Your task to perform on an android device: Go to location settings Image 0: 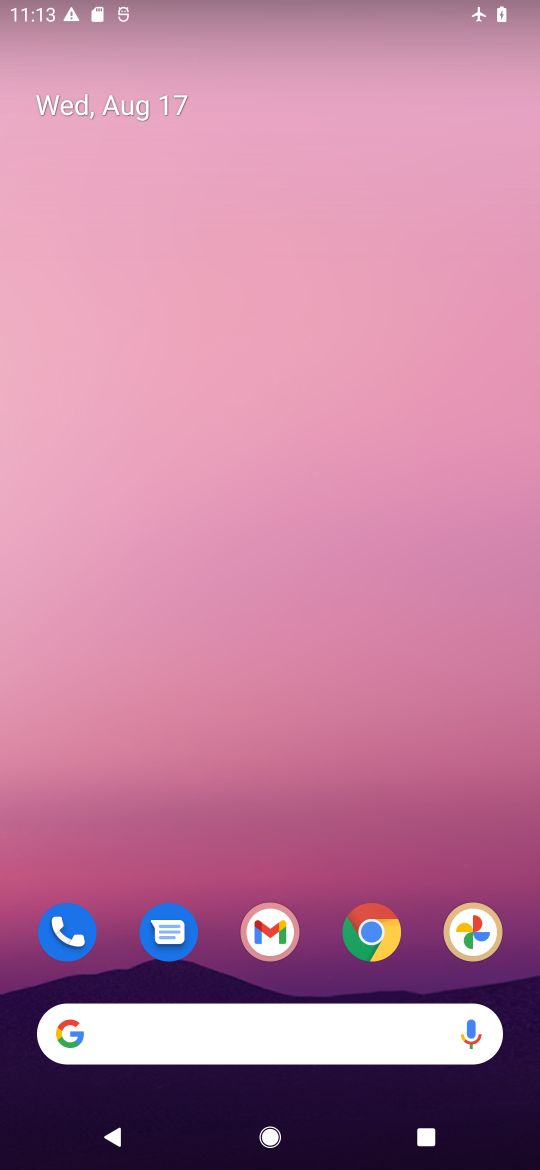
Step 0: click (298, 224)
Your task to perform on an android device: Go to location settings Image 1: 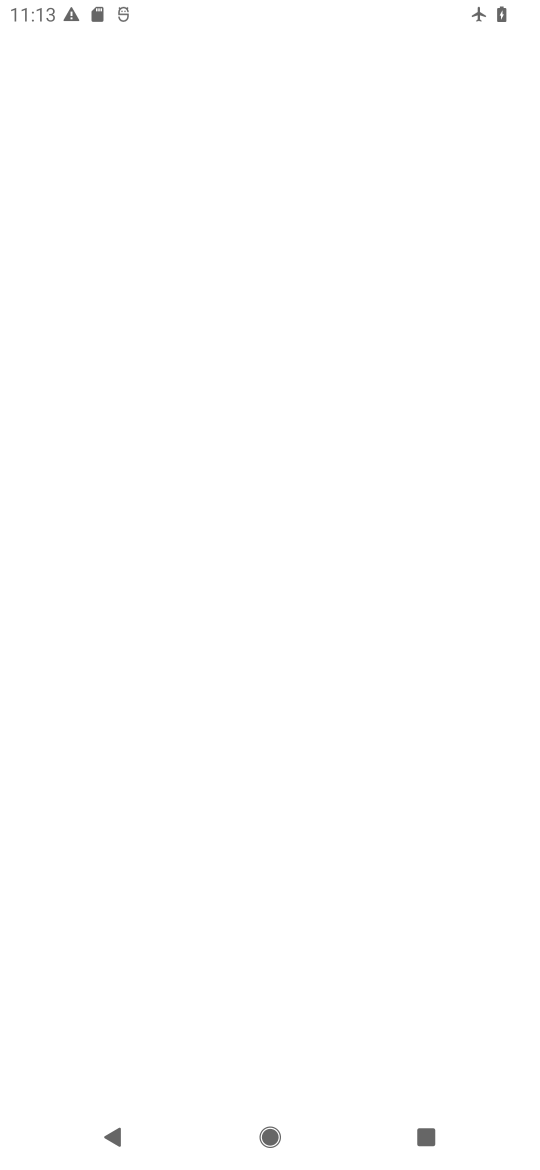
Step 1: drag from (238, 837) to (251, 754)
Your task to perform on an android device: Go to location settings Image 2: 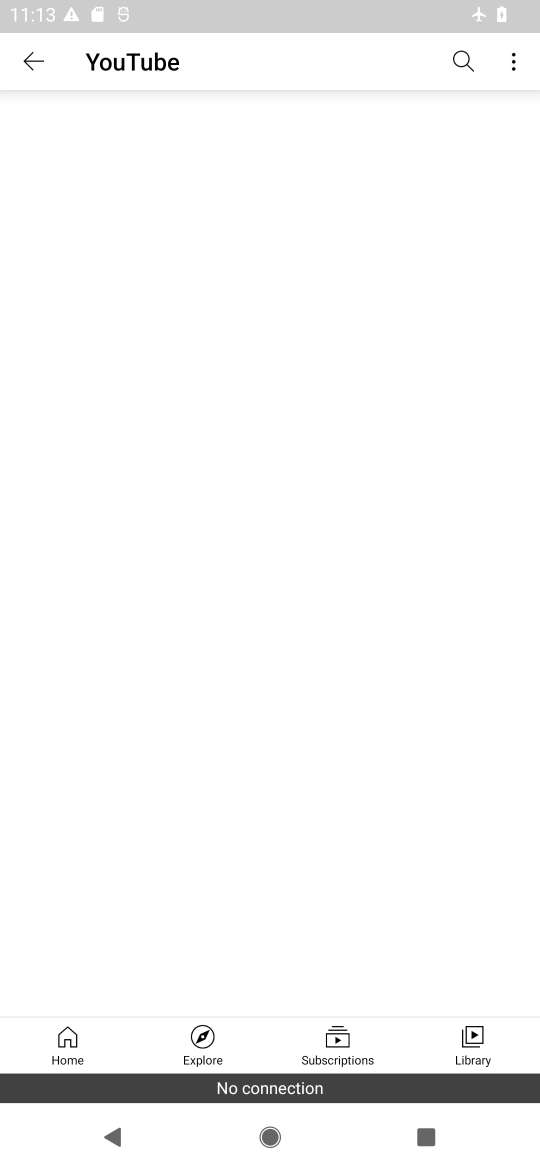
Step 2: press home button
Your task to perform on an android device: Go to location settings Image 3: 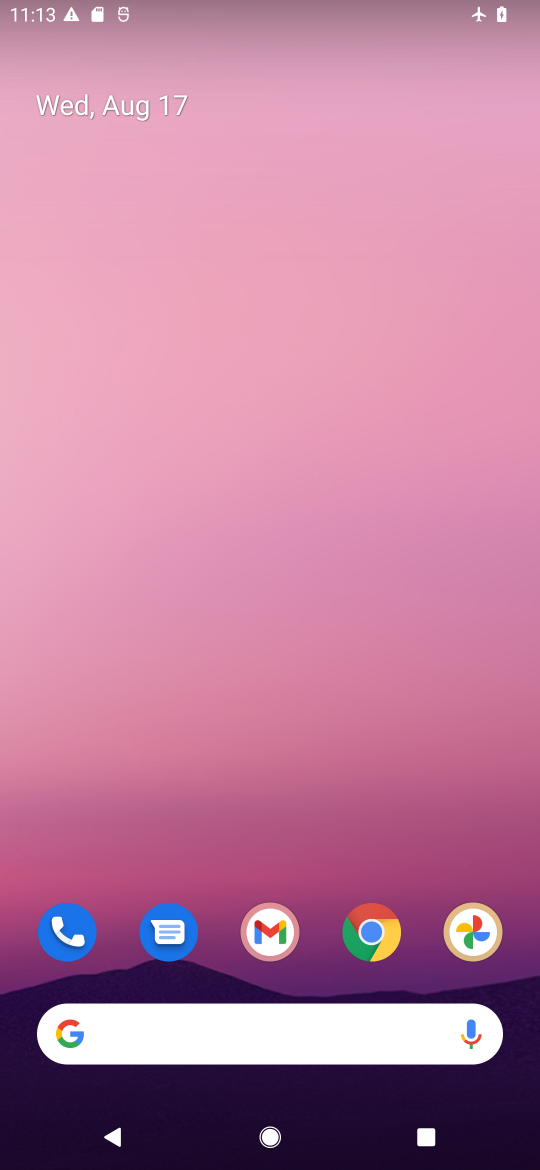
Step 3: drag from (276, 847) to (266, 81)
Your task to perform on an android device: Go to location settings Image 4: 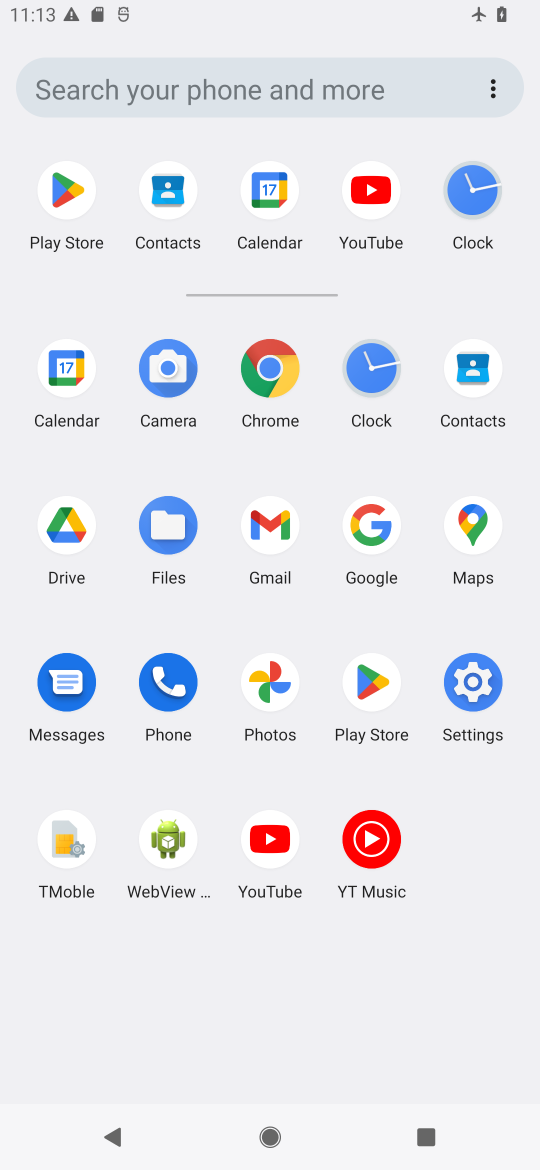
Step 4: click (451, 655)
Your task to perform on an android device: Go to location settings Image 5: 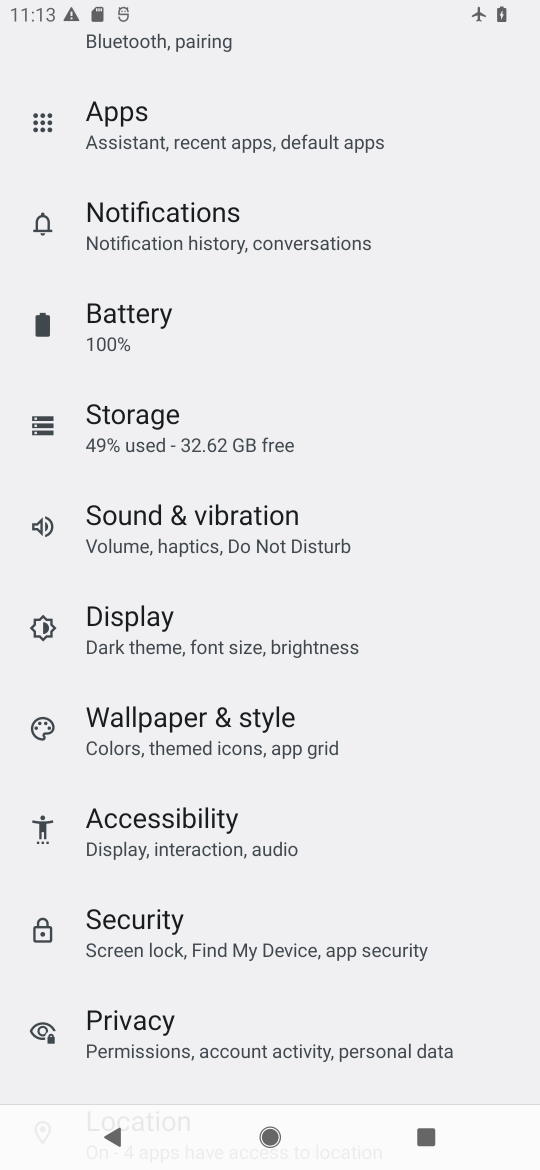
Step 5: drag from (235, 956) to (230, 346)
Your task to perform on an android device: Go to location settings Image 6: 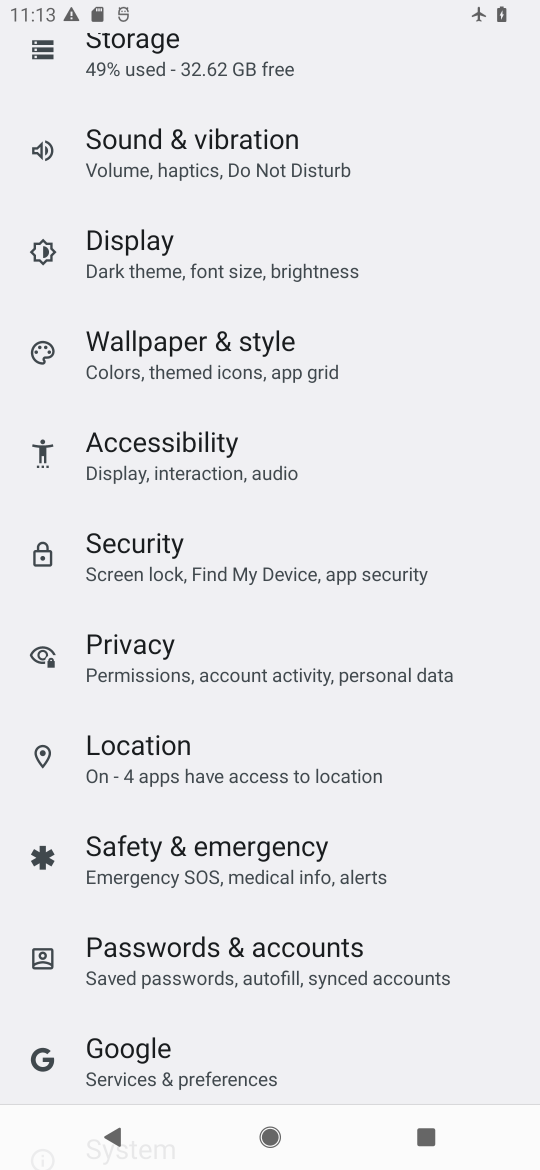
Step 6: click (148, 739)
Your task to perform on an android device: Go to location settings Image 7: 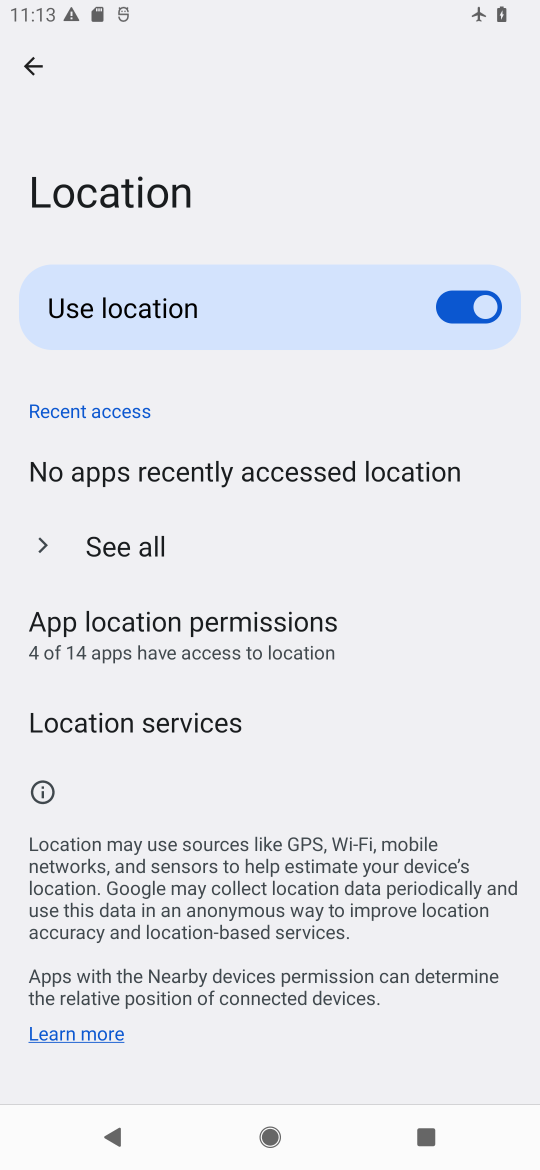
Step 7: task complete